Your task to perform on an android device: Go to Android settings Image 0: 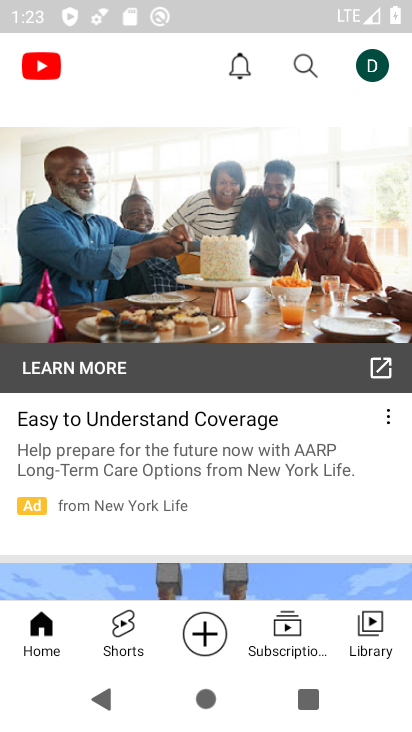
Step 0: press home button
Your task to perform on an android device: Go to Android settings Image 1: 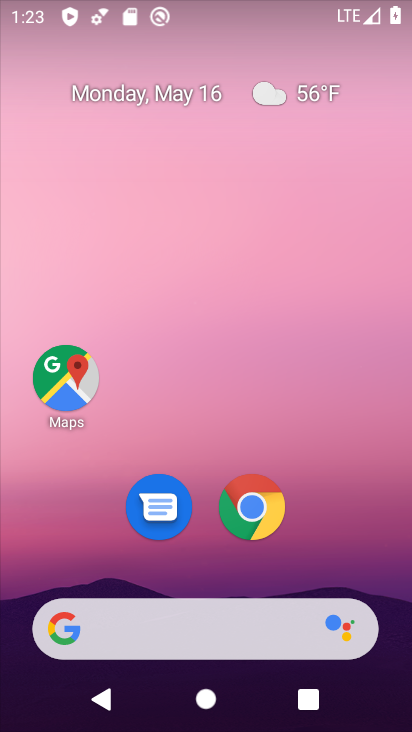
Step 1: drag from (203, 583) to (208, 151)
Your task to perform on an android device: Go to Android settings Image 2: 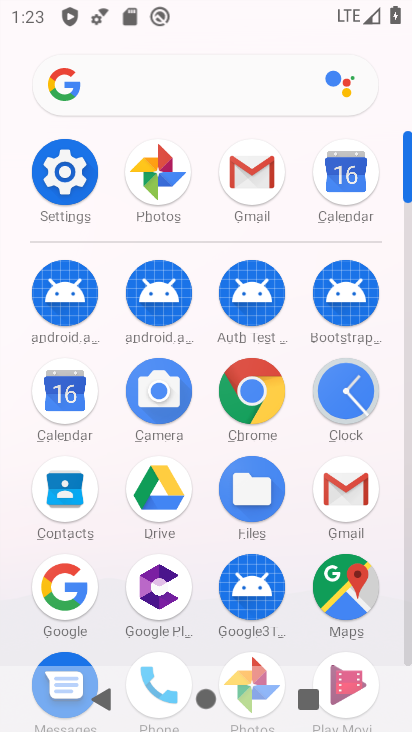
Step 2: click (53, 170)
Your task to perform on an android device: Go to Android settings Image 3: 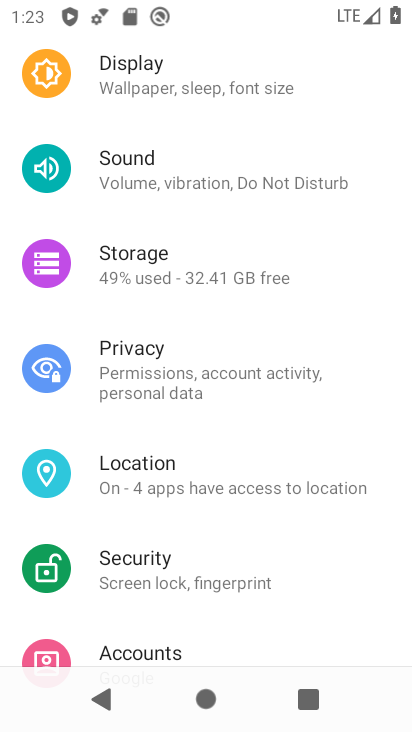
Step 3: task complete